Your task to perform on an android device: Find coffee shops on Maps Image 0: 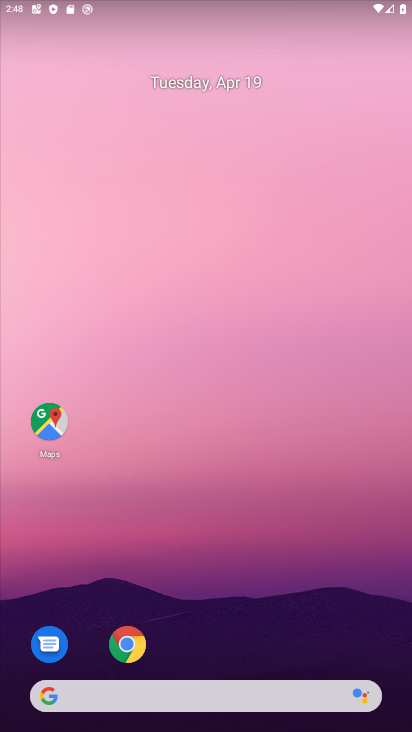
Step 0: drag from (261, 604) to (261, 146)
Your task to perform on an android device: Find coffee shops on Maps Image 1: 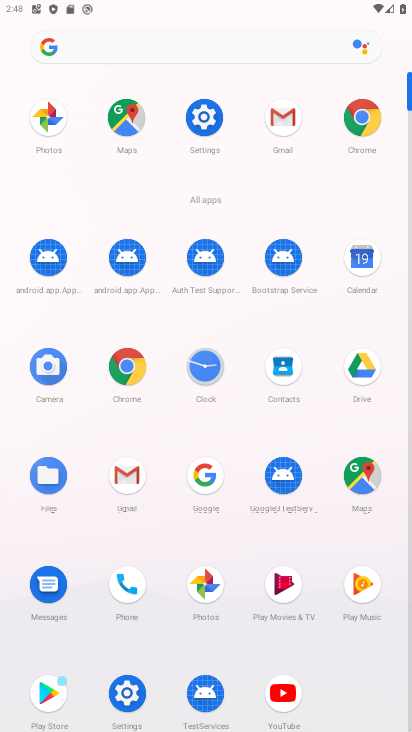
Step 1: click (358, 482)
Your task to perform on an android device: Find coffee shops on Maps Image 2: 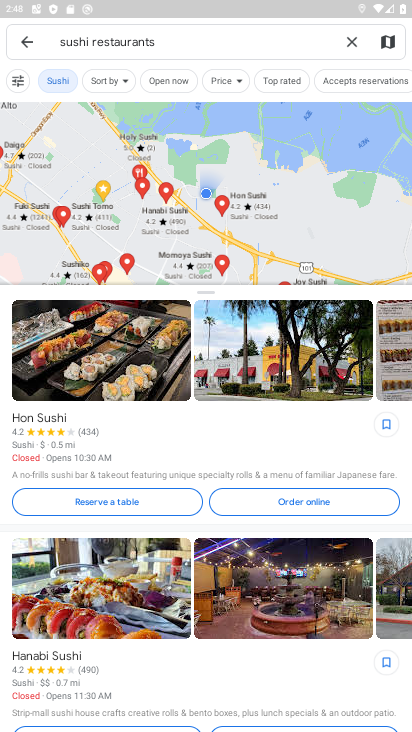
Step 2: click (212, 39)
Your task to perform on an android device: Find coffee shops on Maps Image 3: 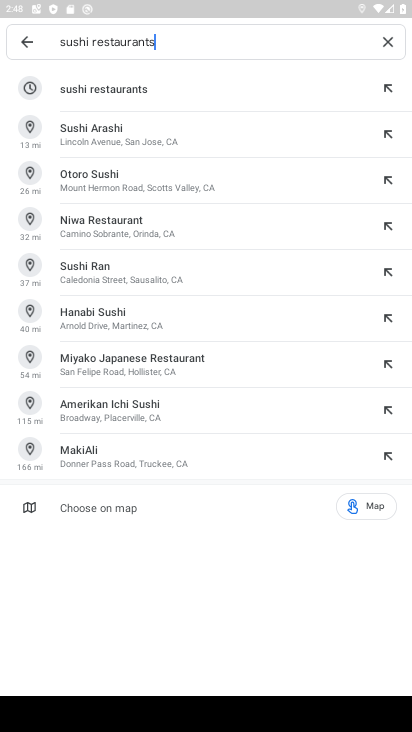
Step 3: click (388, 38)
Your task to perform on an android device: Find coffee shops on Maps Image 4: 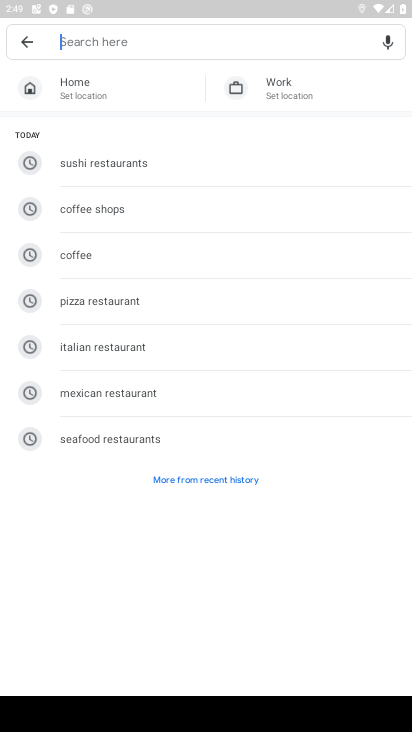
Step 4: click (137, 210)
Your task to perform on an android device: Find coffee shops on Maps Image 5: 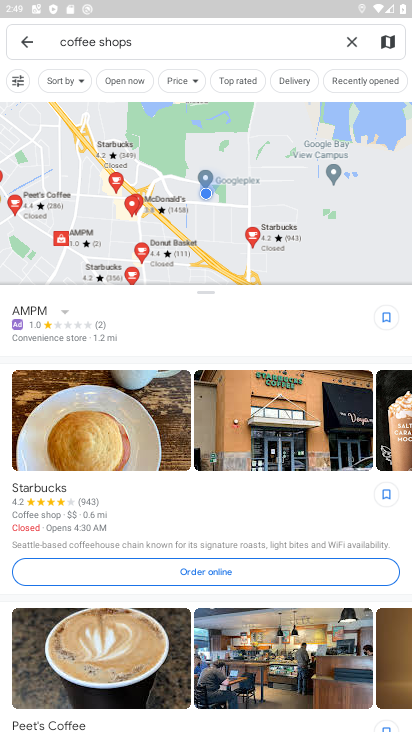
Step 5: task complete